Your task to perform on an android device: Open Google Chrome and open the bookmarks view Image 0: 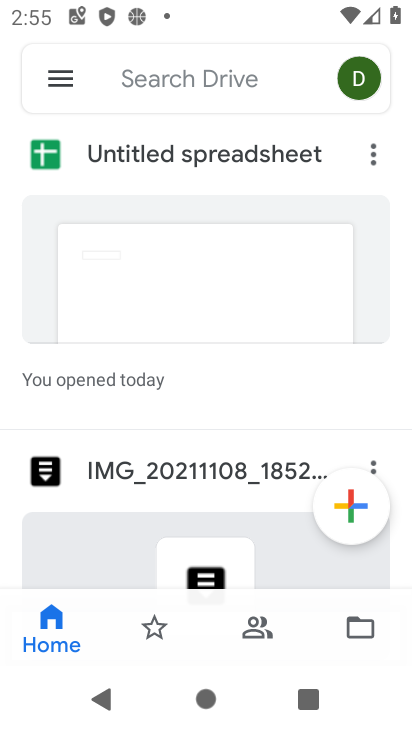
Step 0: press home button
Your task to perform on an android device: Open Google Chrome and open the bookmarks view Image 1: 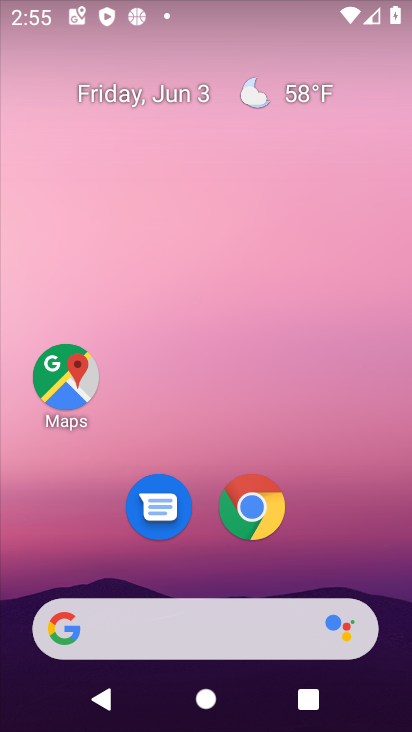
Step 1: click (255, 507)
Your task to perform on an android device: Open Google Chrome and open the bookmarks view Image 2: 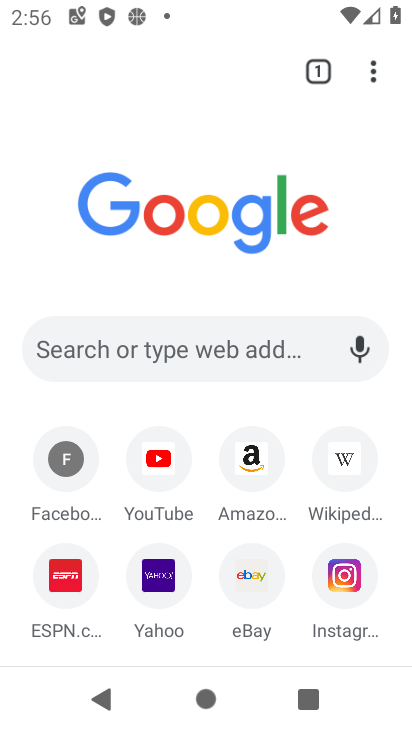
Step 2: click (372, 68)
Your task to perform on an android device: Open Google Chrome and open the bookmarks view Image 3: 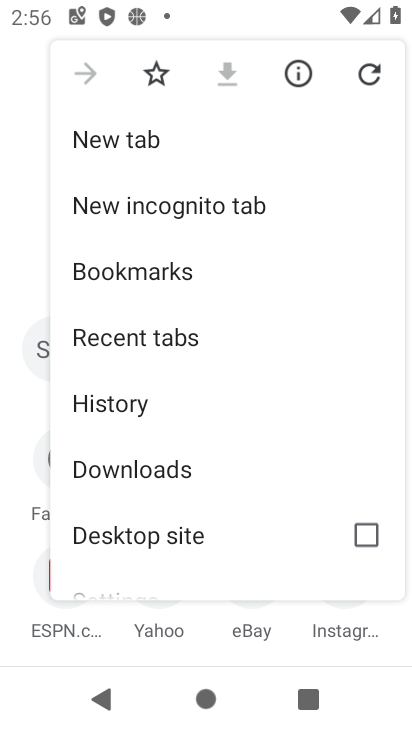
Step 3: click (165, 270)
Your task to perform on an android device: Open Google Chrome and open the bookmarks view Image 4: 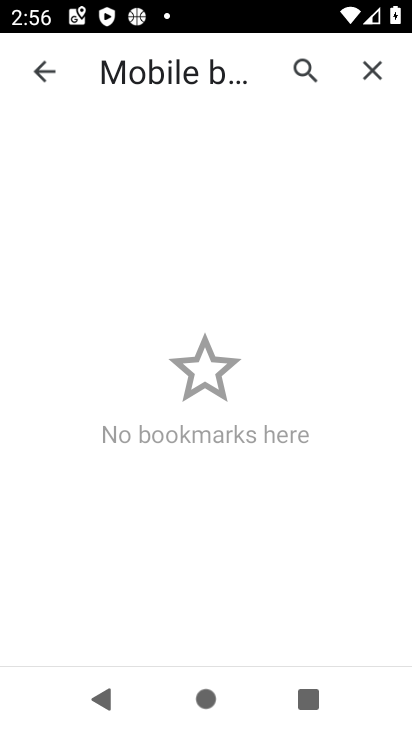
Step 4: task complete